Your task to perform on an android device: open the mobile data screen to see how much data has been used Image 0: 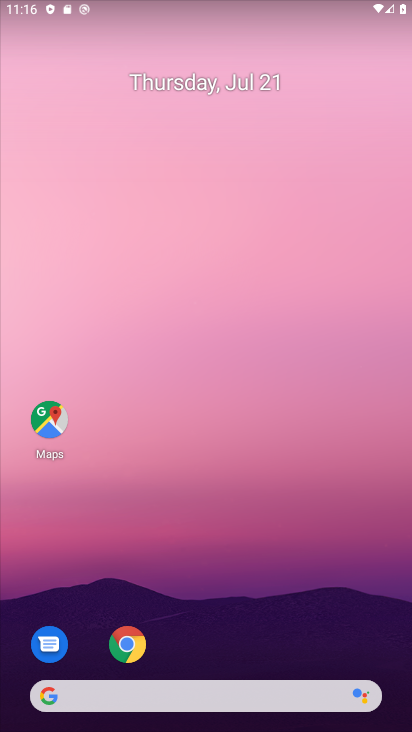
Step 0: click (307, 28)
Your task to perform on an android device: open the mobile data screen to see how much data has been used Image 1: 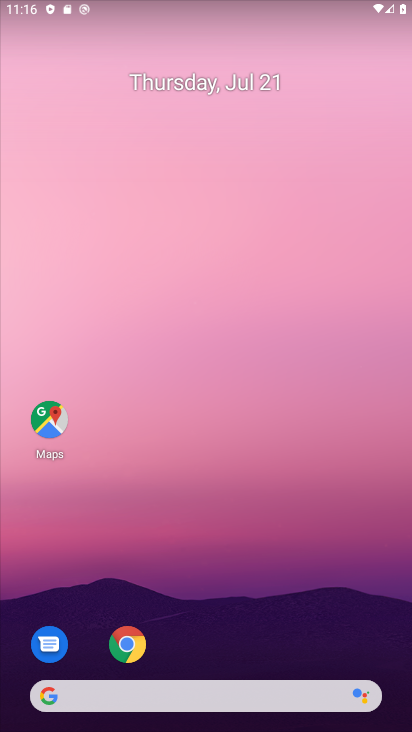
Step 1: drag from (176, 642) to (180, 104)
Your task to perform on an android device: open the mobile data screen to see how much data has been used Image 2: 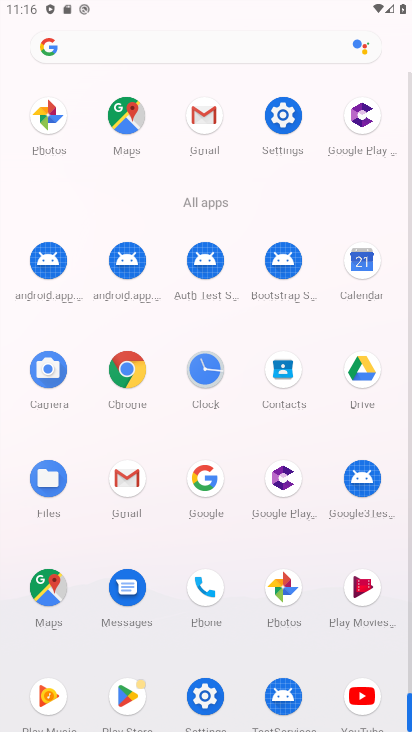
Step 2: drag from (178, 591) to (242, 188)
Your task to perform on an android device: open the mobile data screen to see how much data has been used Image 3: 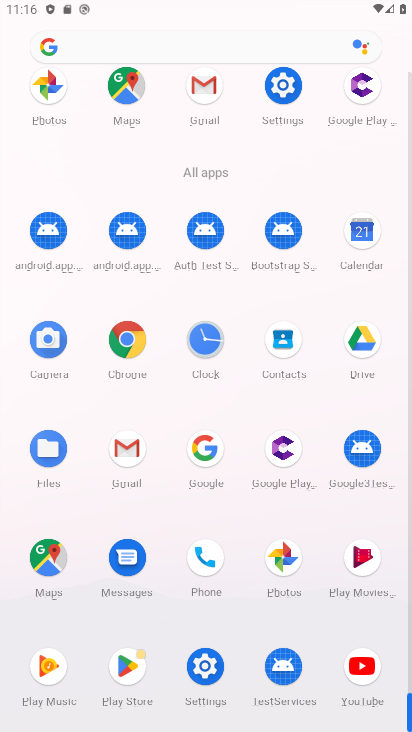
Step 3: click (277, 82)
Your task to perform on an android device: open the mobile data screen to see how much data has been used Image 4: 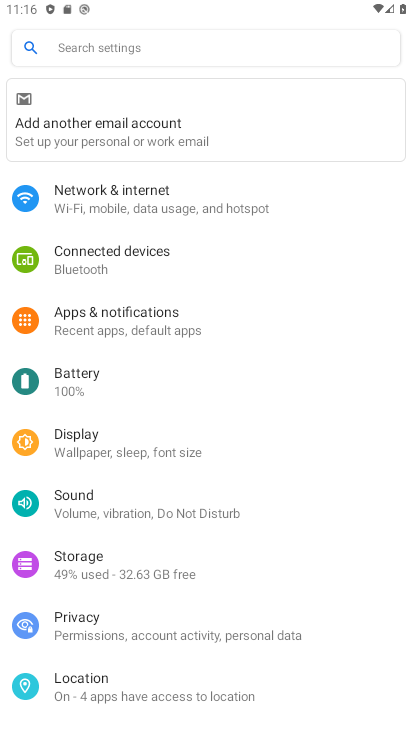
Step 4: drag from (176, 540) to (213, 167)
Your task to perform on an android device: open the mobile data screen to see how much data has been used Image 5: 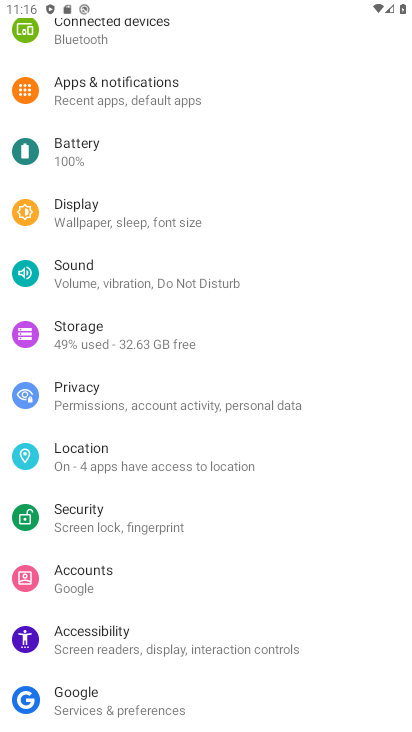
Step 5: drag from (165, 184) to (235, 716)
Your task to perform on an android device: open the mobile data screen to see how much data has been used Image 6: 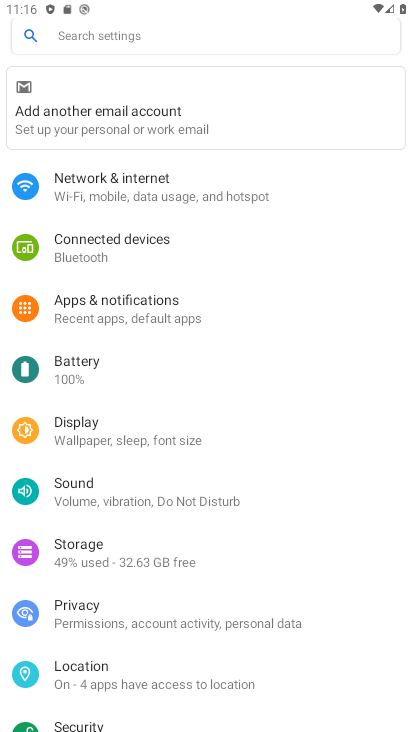
Step 6: click (166, 195)
Your task to perform on an android device: open the mobile data screen to see how much data has been used Image 7: 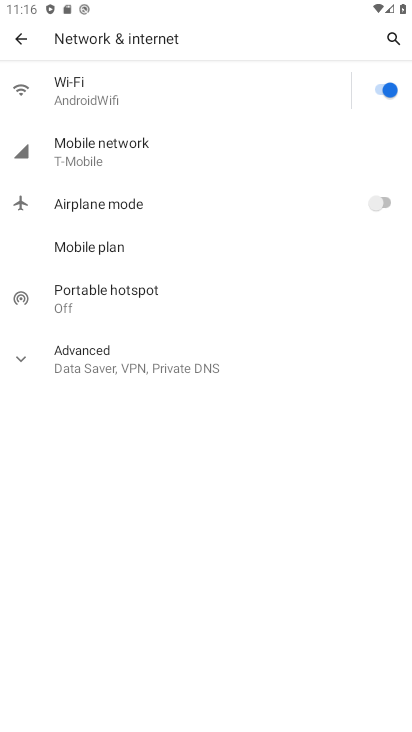
Step 7: click (167, 163)
Your task to perform on an android device: open the mobile data screen to see how much data has been used Image 8: 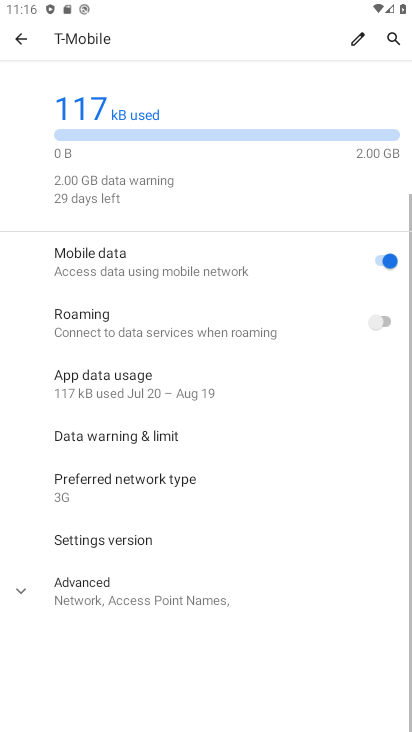
Step 8: task complete